Your task to perform on an android device: check data usage Image 0: 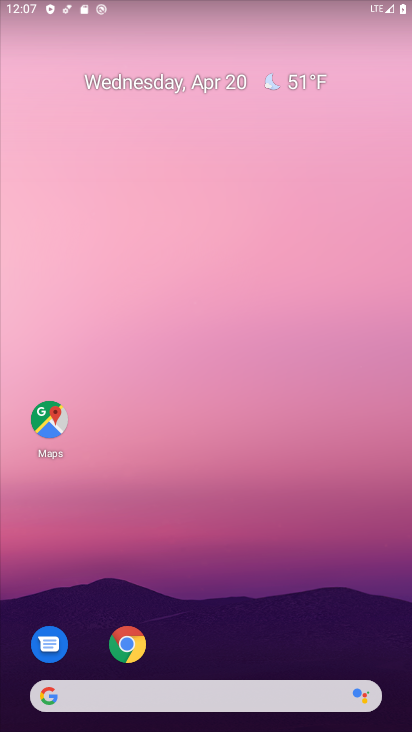
Step 0: drag from (217, 725) to (220, 186)
Your task to perform on an android device: check data usage Image 1: 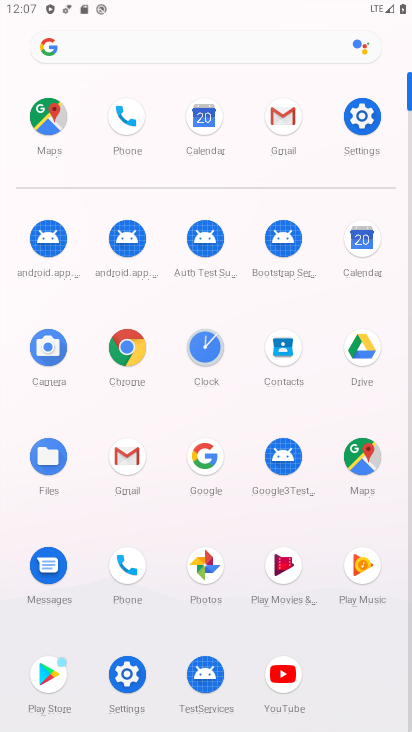
Step 1: click (358, 119)
Your task to perform on an android device: check data usage Image 2: 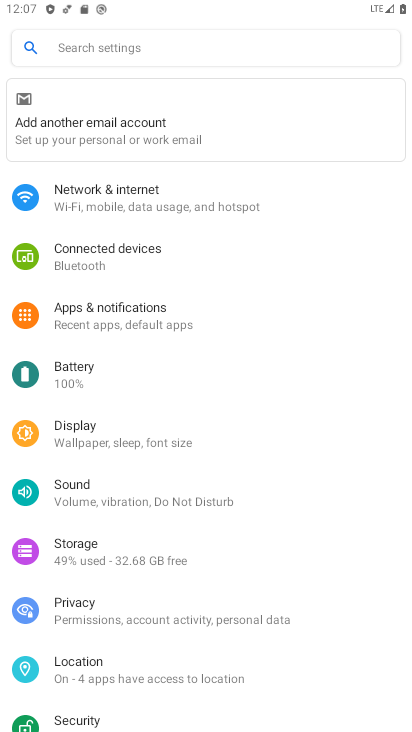
Step 2: click (94, 200)
Your task to perform on an android device: check data usage Image 3: 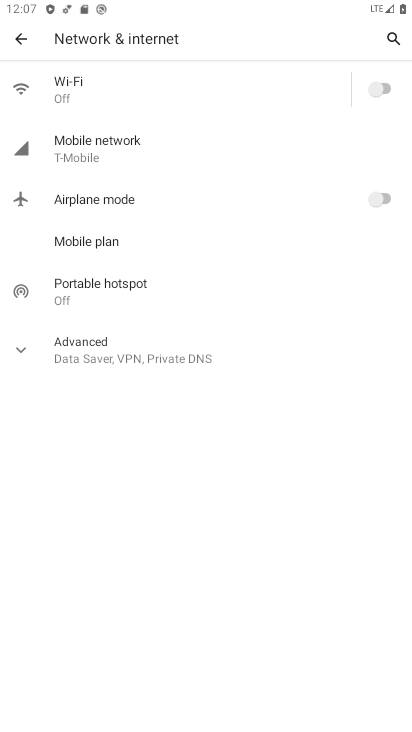
Step 3: click (89, 148)
Your task to perform on an android device: check data usage Image 4: 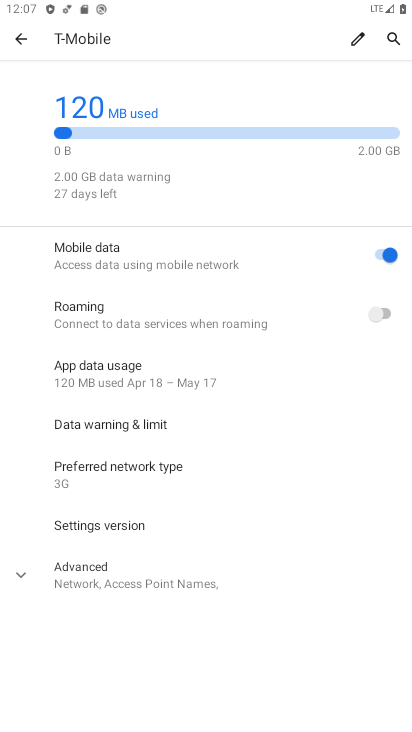
Step 4: click (123, 371)
Your task to perform on an android device: check data usage Image 5: 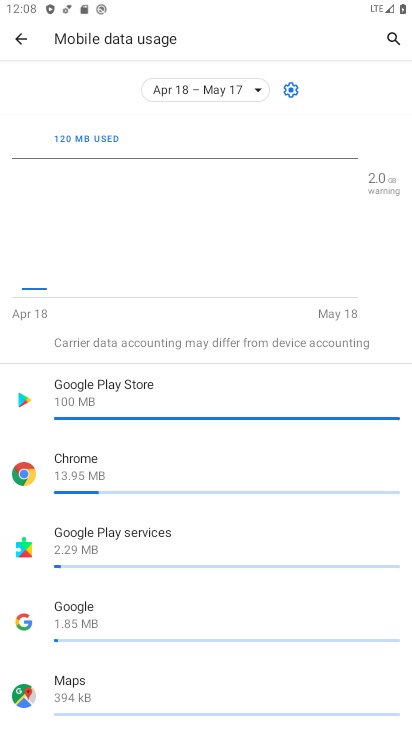
Step 5: task complete